Your task to perform on an android device: check google app version Image 0: 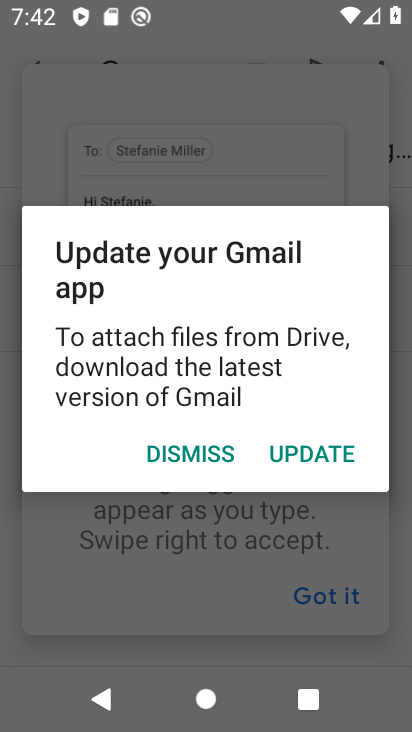
Step 0: press home button
Your task to perform on an android device: check google app version Image 1: 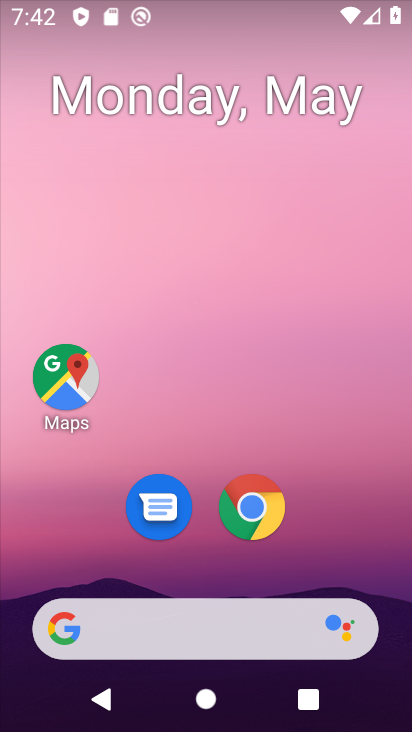
Step 1: drag from (328, 473) to (235, 99)
Your task to perform on an android device: check google app version Image 2: 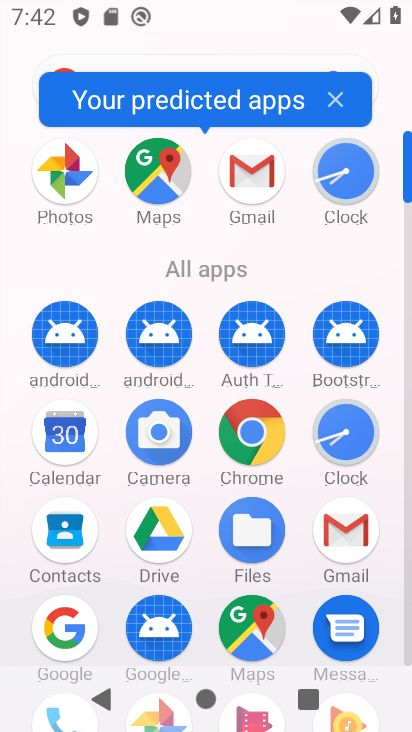
Step 2: click (66, 622)
Your task to perform on an android device: check google app version Image 3: 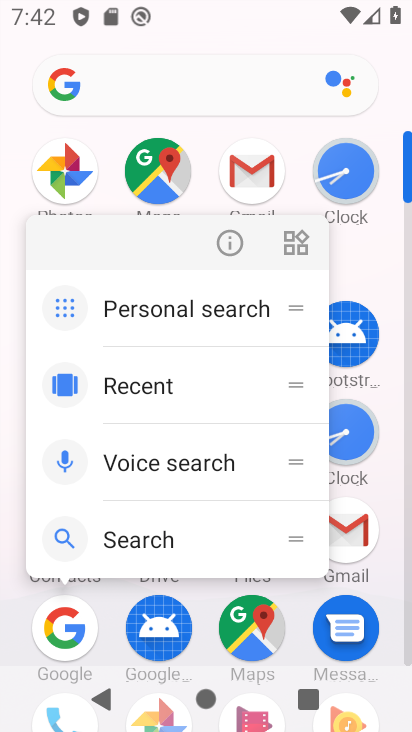
Step 3: click (229, 235)
Your task to perform on an android device: check google app version Image 4: 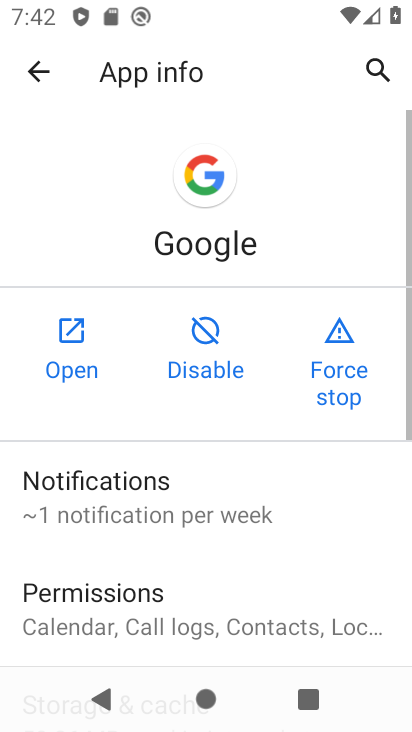
Step 4: drag from (228, 503) to (229, 2)
Your task to perform on an android device: check google app version Image 5: 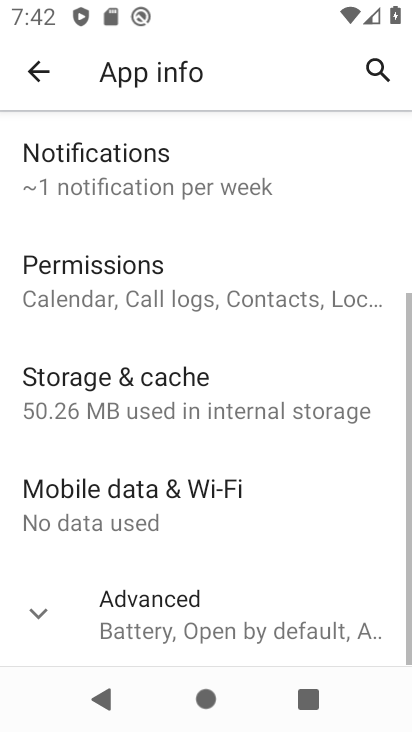
Step 5: click (153, 580)
Your task to perform on an android device: check google app version Image 6: 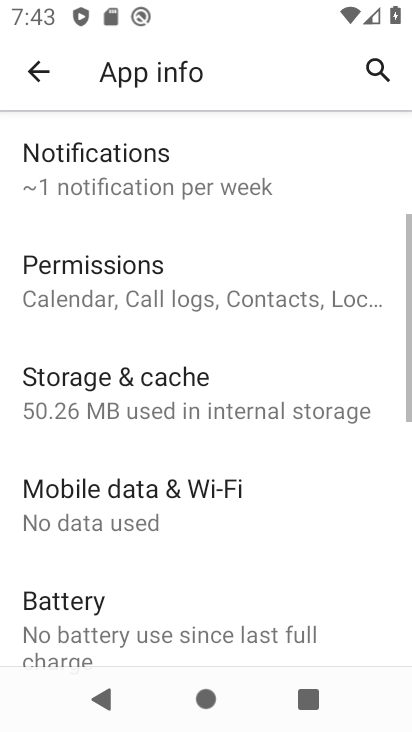
Step 6: task complete